Your task to perform on an android device: Open Maps and search for coffee Image 0: 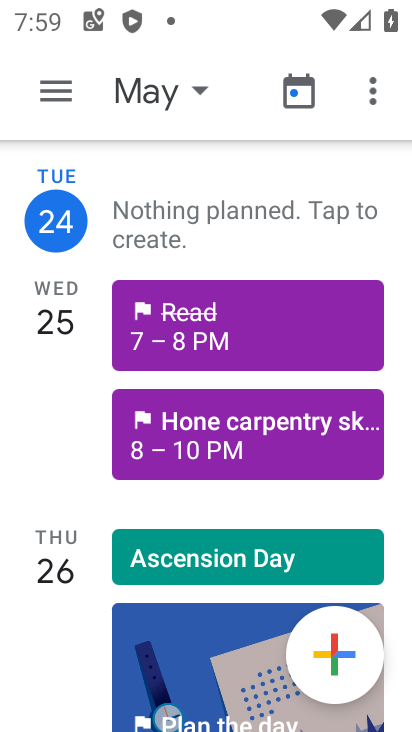
Step 0: press home button
Your task to perform on an android device: Open Maps and search for coffee Image 1: 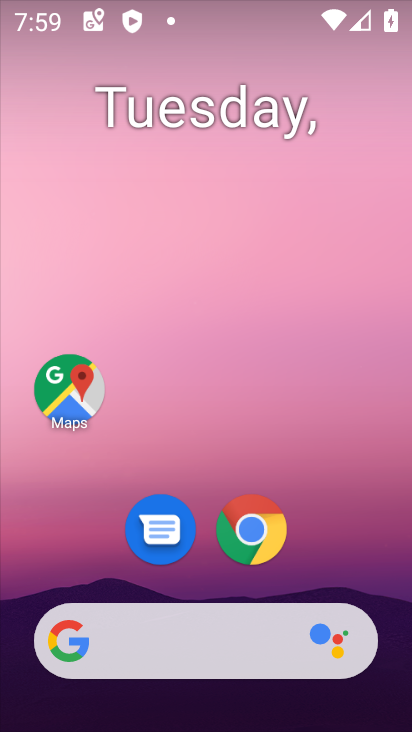
Step 1: drag from (232, 596) to (274, 3)
Your task to perform on an android device: Open Maps and search for coffee Image 2: 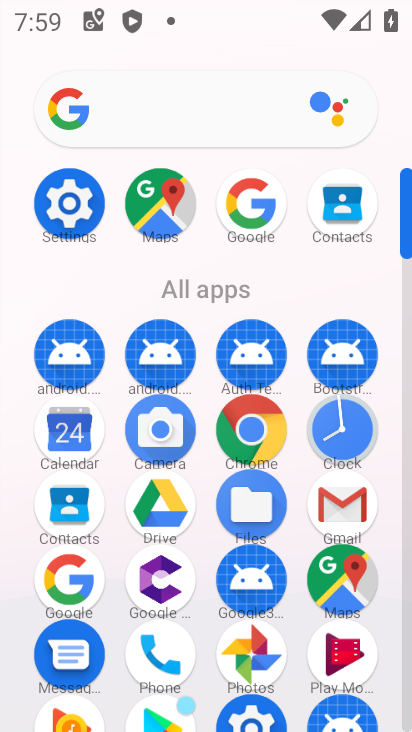
Step 2: click (360, 590)
Your task to perform on an android device: Open Maps and search for coffee Image 3: 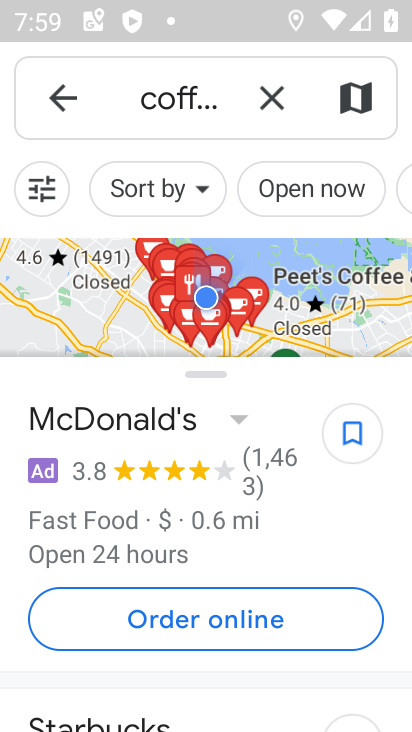
Step 3: task complete